Your task to perform on an android device: Open privacy settings Image 0: 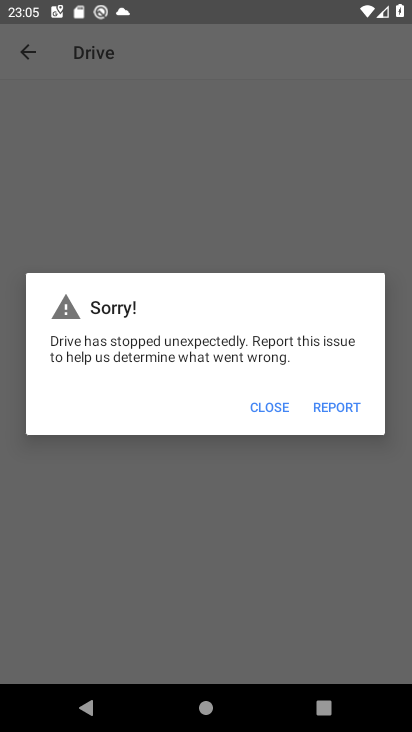
Step 0: press home button
Your task to perform on an android device: Open privacy settings Image 1: 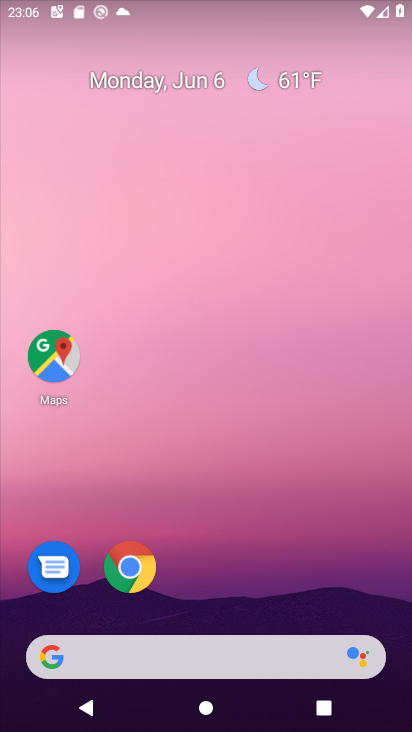
Step 1: drag from (238, 628) to (238, 146)
Your task to perform on an android device: Open privacy settings Image 2: 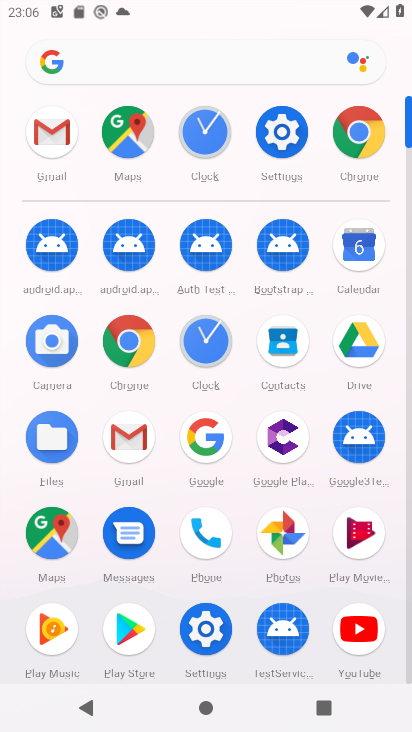
Step 2: click (278, 133)
Your task to perform on an android device: Open privacy settings Image 3: 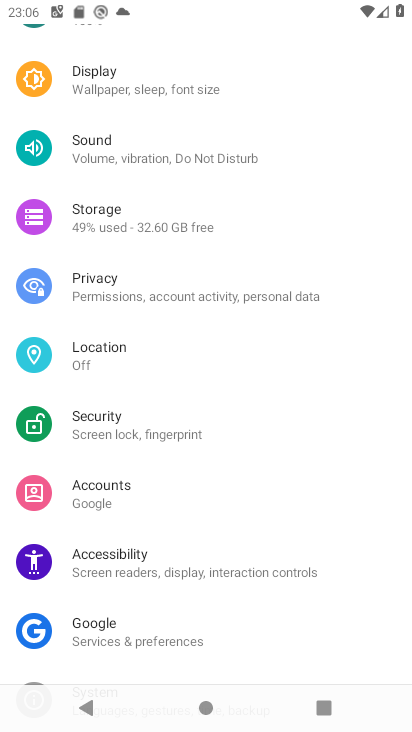
Step 3: click (105, 285)
Your task to perform on an android device: Open privacy settings Image 4: 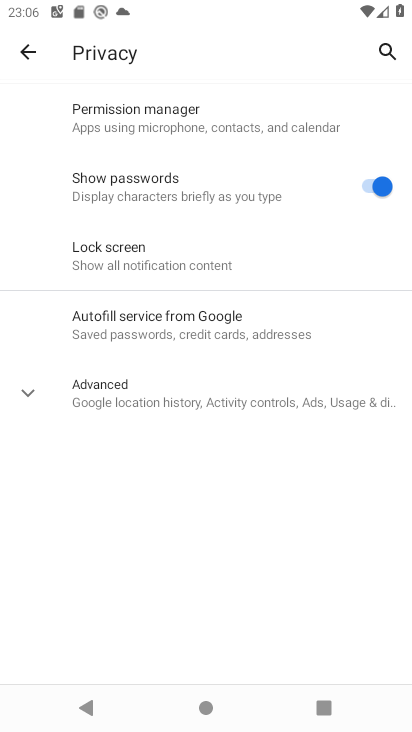
Step 4: task complete